Your task to perform on an android device: change the upload size in google photos Image 0: 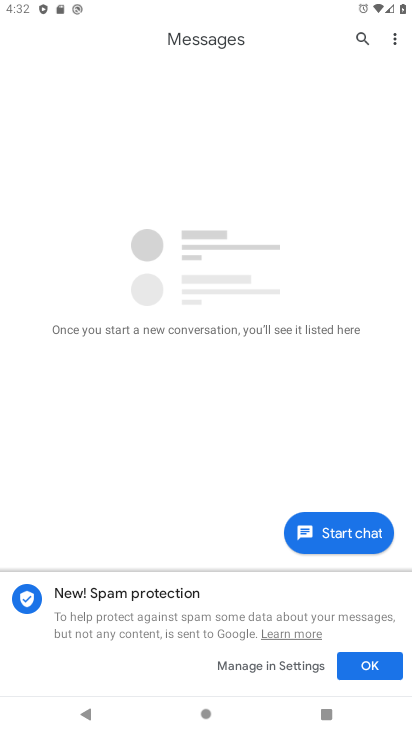
Step 0: press home button
Your task to perform on an android device: change the upload size in google photos Image 1: 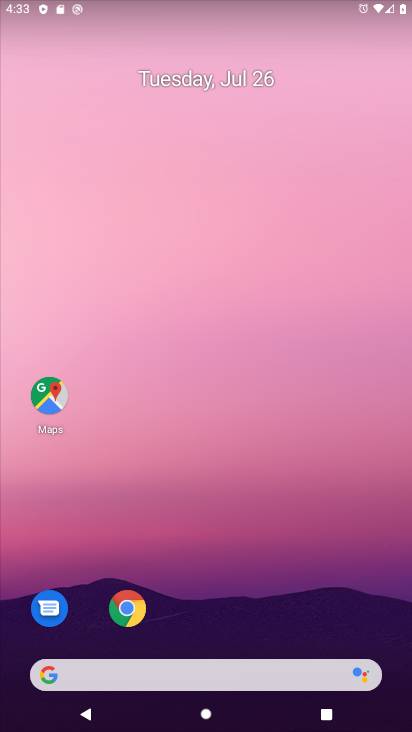
Step 1: drag from (392, 677) to (315, 126)
Your task to perform on an android device: change the upload size in google photos Image 2: 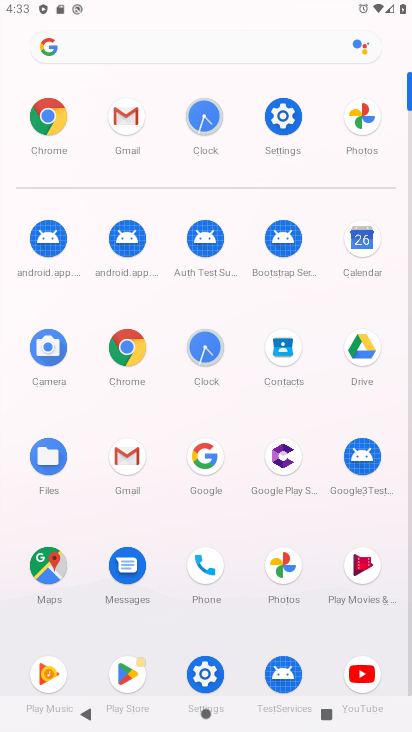
Step 2: click (278, 572)
Your task to perform on an android device: change the upload size in google photos Image 3: 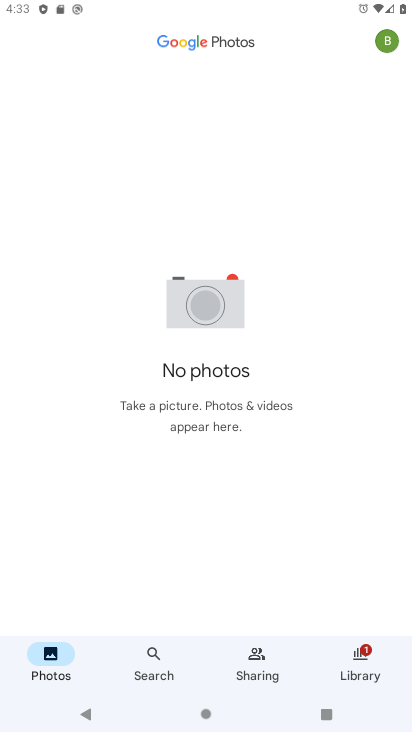
Step 3: task complete